Your task to perform on an android device: open a new tab in the chrome app Image 0: 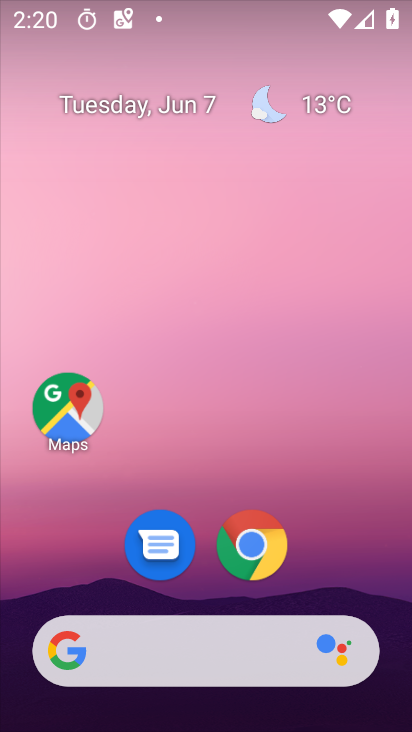
Step 0: click (235, 536)
Your task to perform on an android device: open a new tab in the chrome app Image 1: 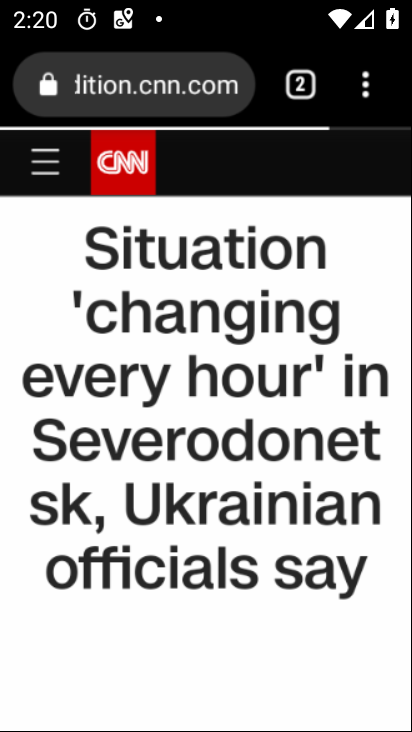
Step 1: click (366, 92)
Your task to perform on an android device: open a new tab in the chrome app Image 2: 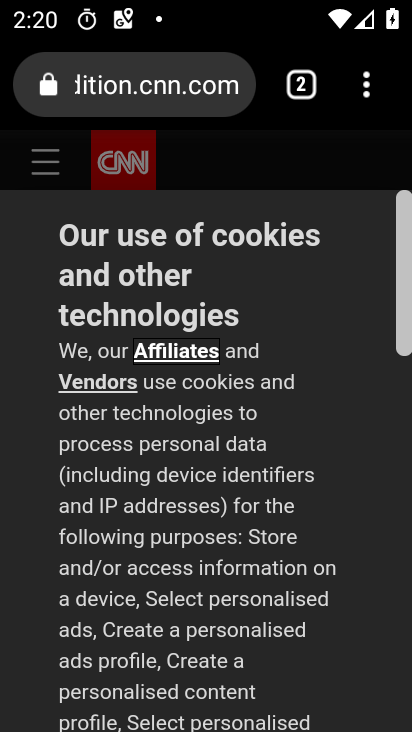
Step 2: click (312, 89)
Your task to perform on an android device: open a new tab in the chrome app Image 3: 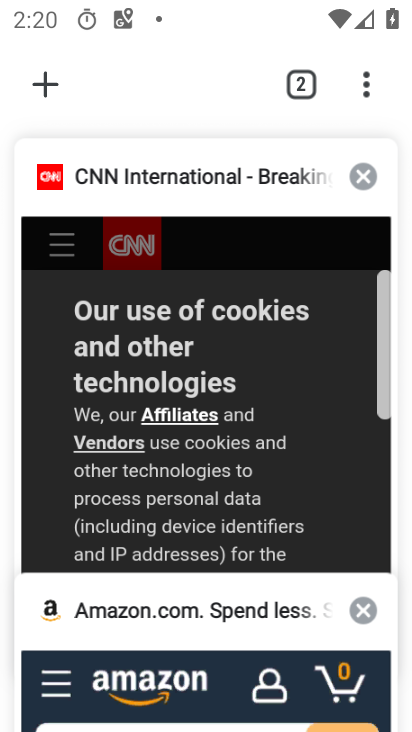
Step 3: click (35, 72)
Your task to perform on an android device: open a new tab in the chrome app Image 4: 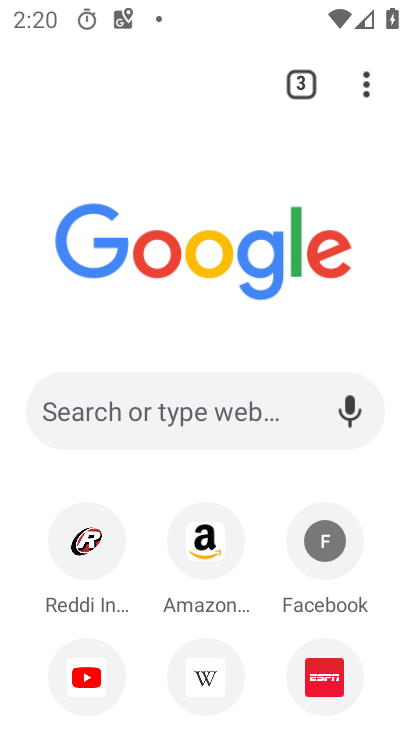
Step 4: task complete